Your task to perform on an android device: set the timer Image 0: 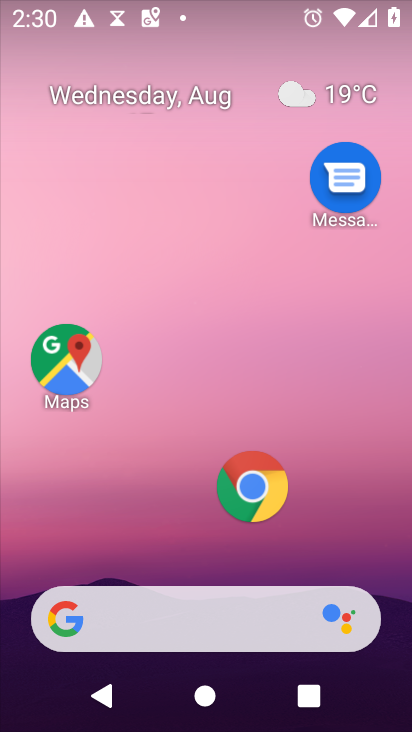
Step 0: drag from (186, 419) to (273, 6)
Your task to perform on an android device: set the timer Image 1: 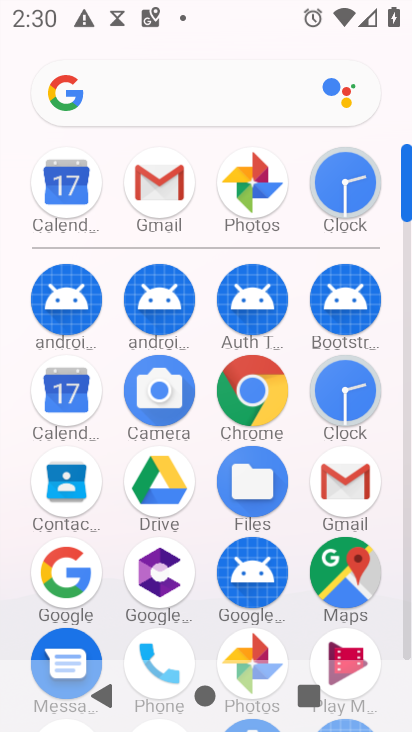
Step 1: click (353, 165)
Your task to perform on an android device: set the timer Image 2: 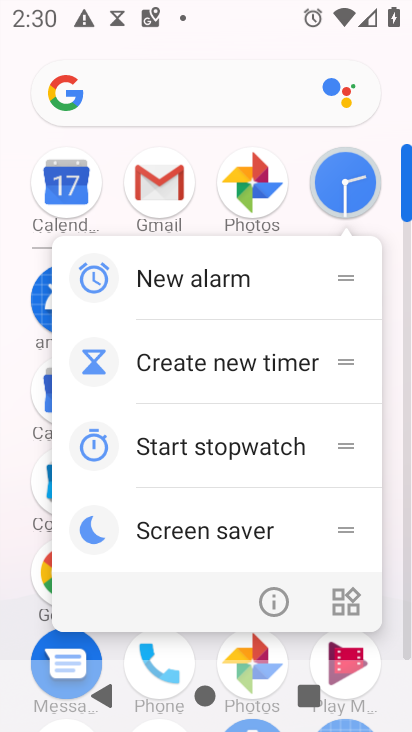
Step 2: click (346, 184)
Your task to perform on an android device: set the timer Image 3: 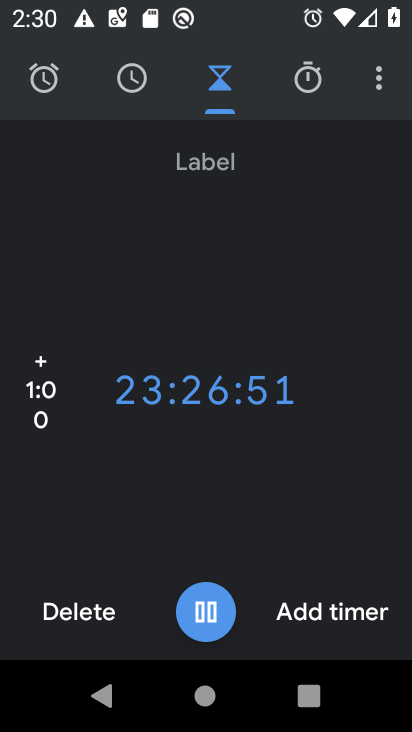
Step 3: task complete